Your task to perform on an android device: Open the phone app and click the voicemail tab. Image 0: 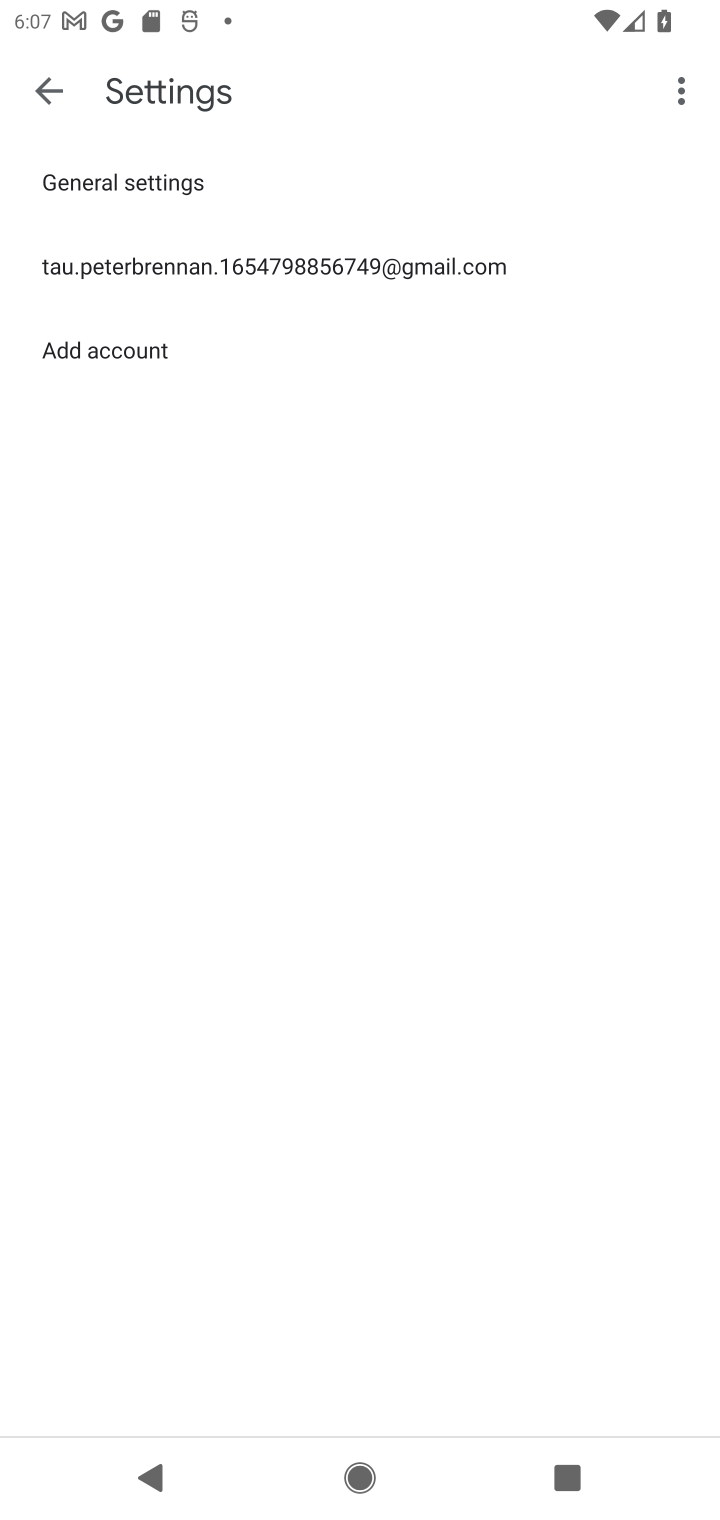
Step 0: task complete